Your task to perform on an android device: When is my next meeting? Image 0: 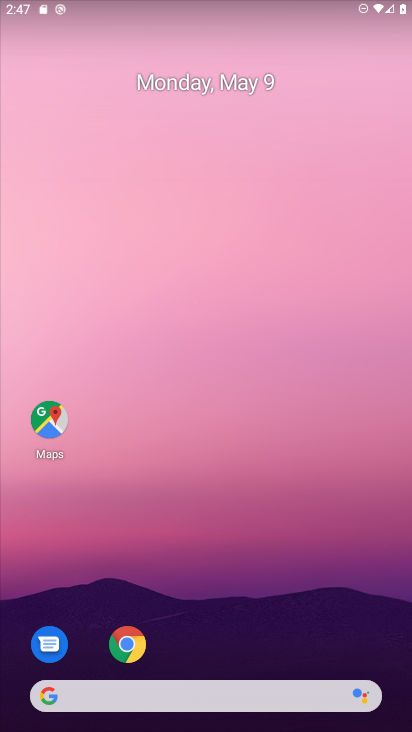
Step 0: drag from (239, 624) to (336, 238)
Your task to perform on an android device: When is my next meeting? Image 1: 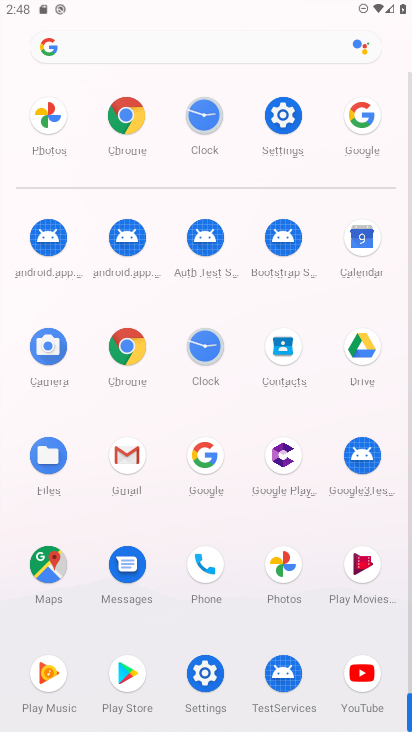
Step 1: click (361, 263)
Your task to perform on an android device: When is my next meeting? Image 2: 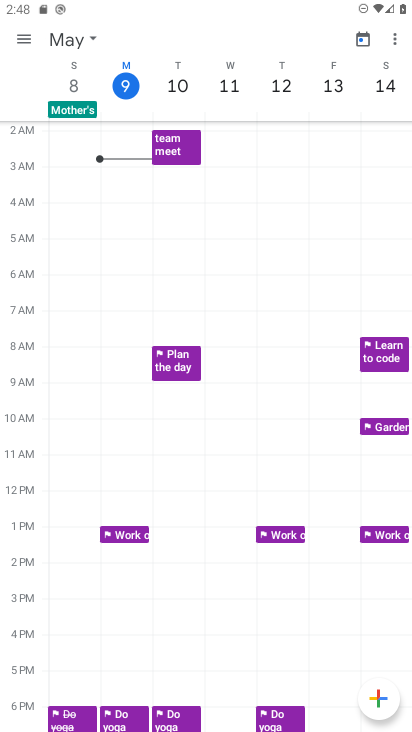
Step 2: click (11, 36)
Your task to perform on an android device: When is my next meeting? Image 3: 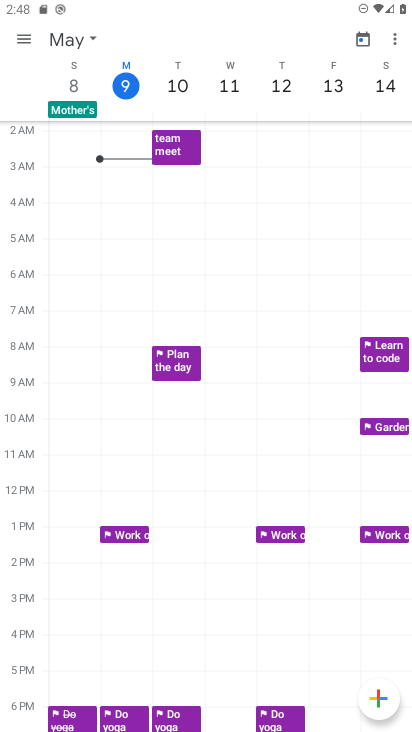
Step 3: click (26, 42)
Your task to perform on an android device: When is my next meeting? Image 4: 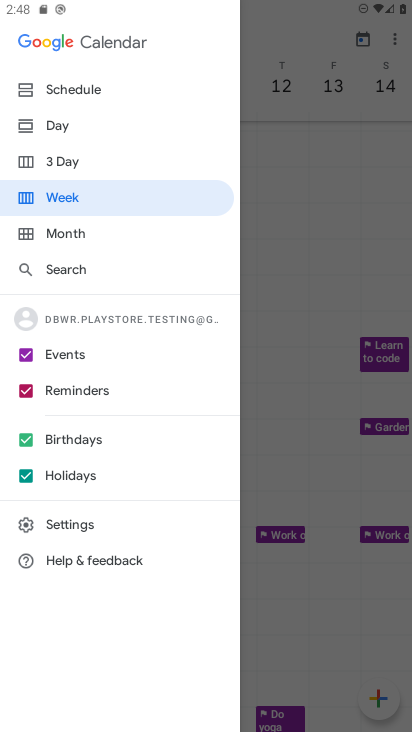
Step 4: click (69, 94)
Your task to perform on an android device: When is my next meeting? Image 5: 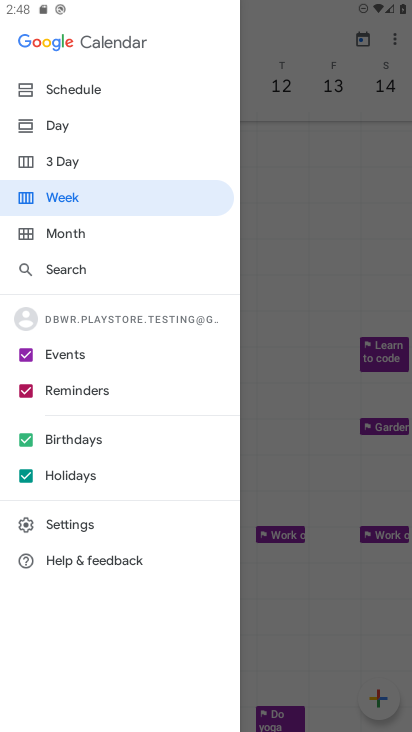
Step 5: click (86, 98)
Your task to perform on an android device: When is my next meeting? Image 6: 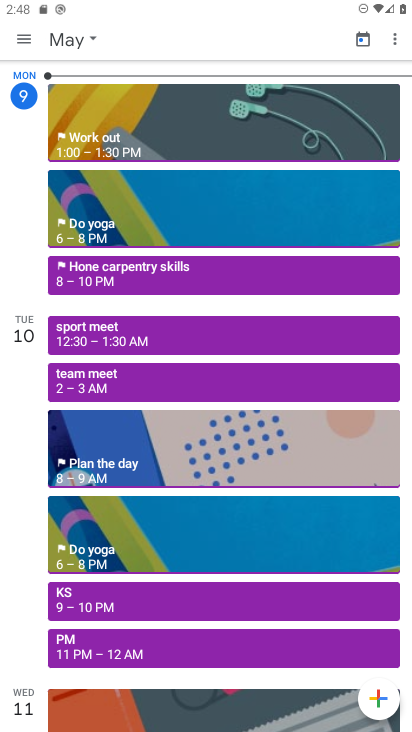
Step 6: task complete